Your task to perform on an android device: toggle pop-ups in chrome Image 0: 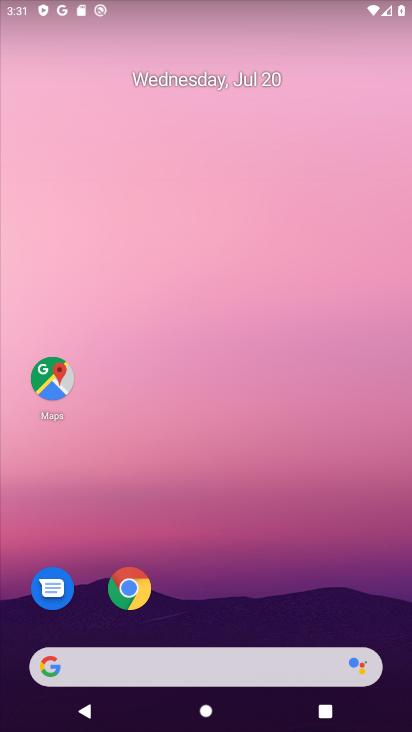
Step 0: click (143, 599)
Your task to perform on an android device: toggle pop-ups in chrome Image 1: 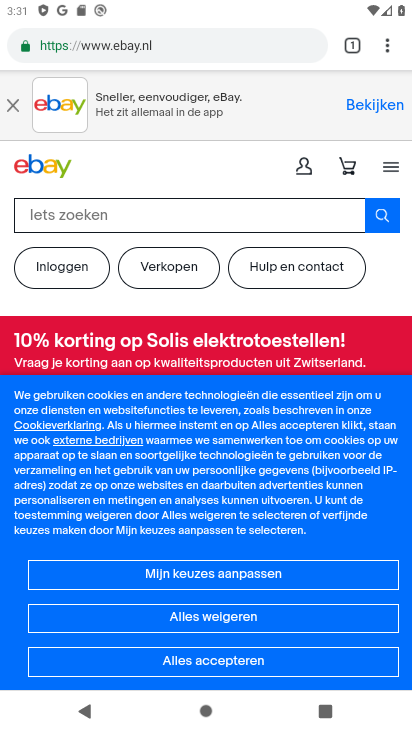
Step 1: click (397, 57)
Your task to perform on an android device: toggle pop-ups in chrome Image 2: 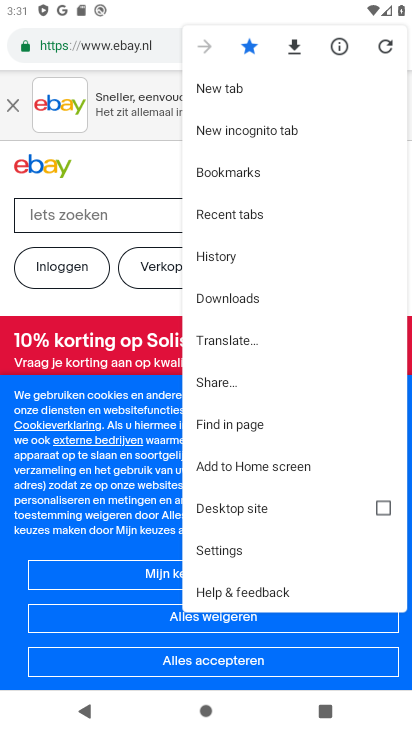
Step 2: click (224, 562)
Your task to perform on an android device: toggle pop-ups in chrome Image 3: 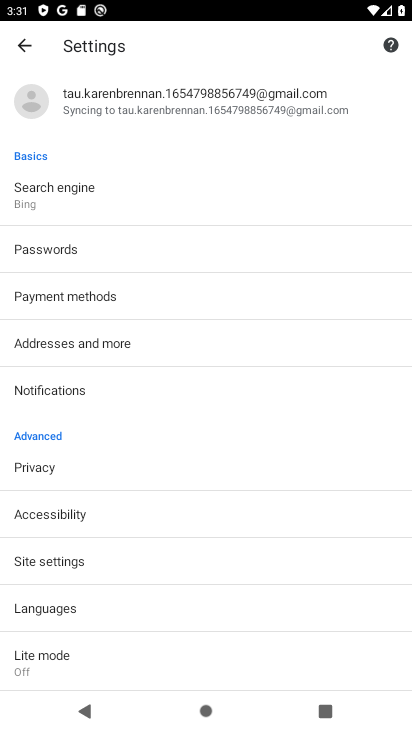
Step 3: click (73, 575)
Your task to perform on an android device: toggle pop-ups in chrome Image 4: 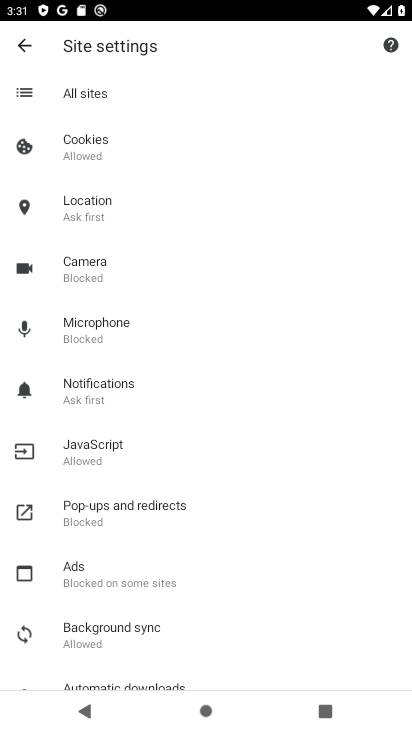
Step 4: drag from (104, 636) to (185, 66)
Your task to perform on an android device: toggle pop-ups in chrome Image 5: 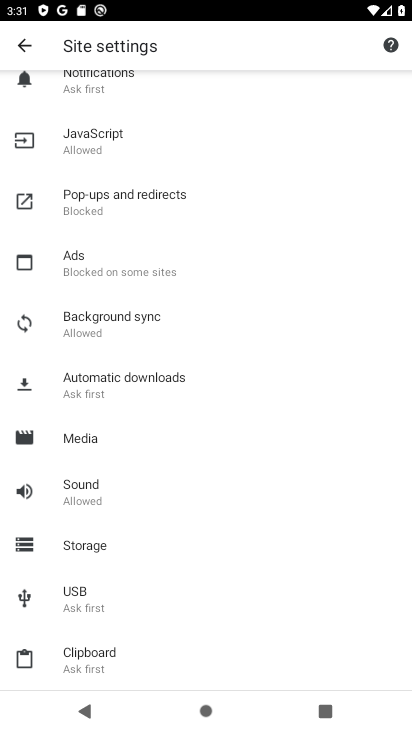
Step 5: drag from (81, 650) to (205, 211)
Your task to perform on an android device: toggle pop-ups in chrome Image 6: 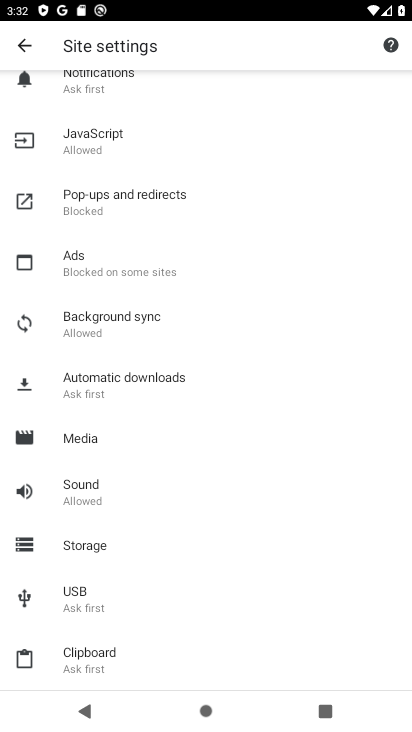
Step 6: click (133, 193)
Your task to perform on an android device: toggle pop-ups in chrome Image 7: 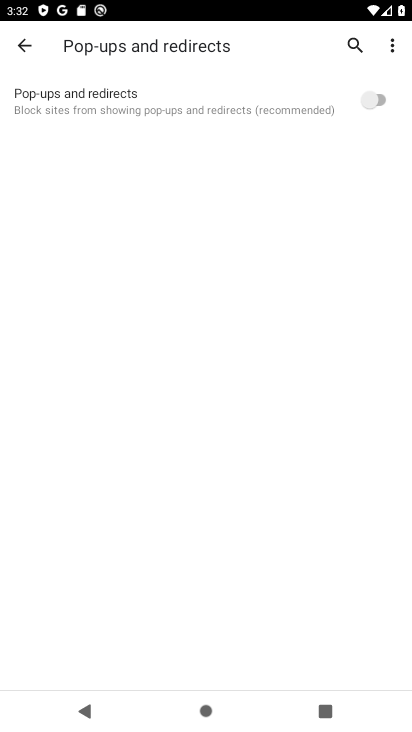
Step 7: click (365, 91)
Your task to perform on an android device: toggle pop-ups in chrome Image 8: 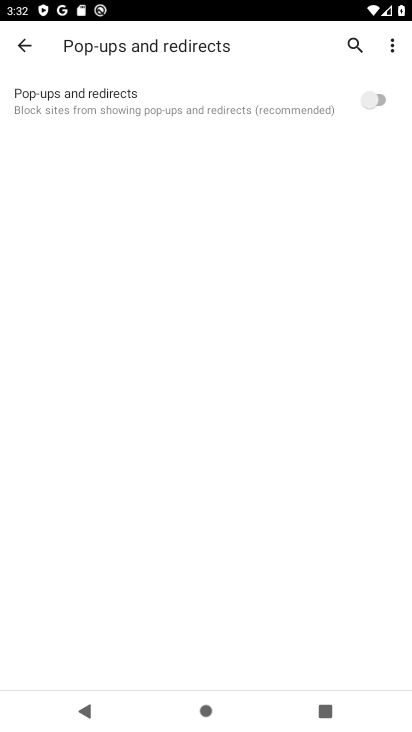
Step 8: click (365, 91)
Your task to perform on an android device: toggle pop-ups in chrome Image 9: 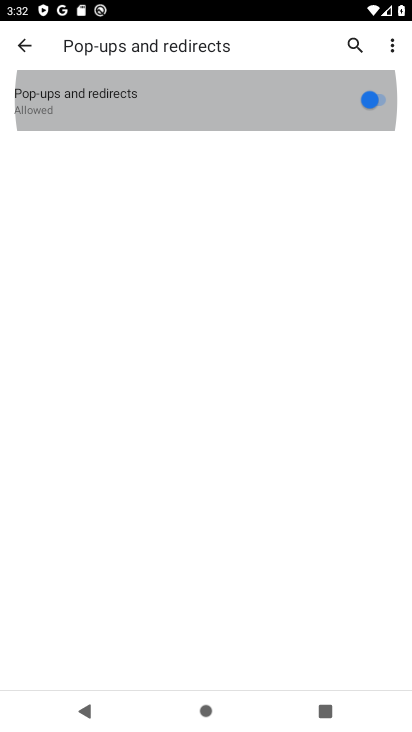
Step 9: click (365, 91)
Your task to perform on an android device: toggle pop-ups in chrome Image 10: 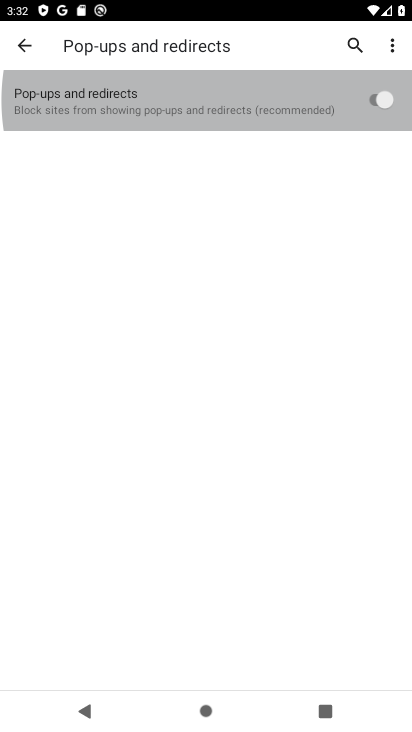
Step 10: click (365, 91)
Your task to perform on an android device: toggle pop-ups in chrome Image 11: 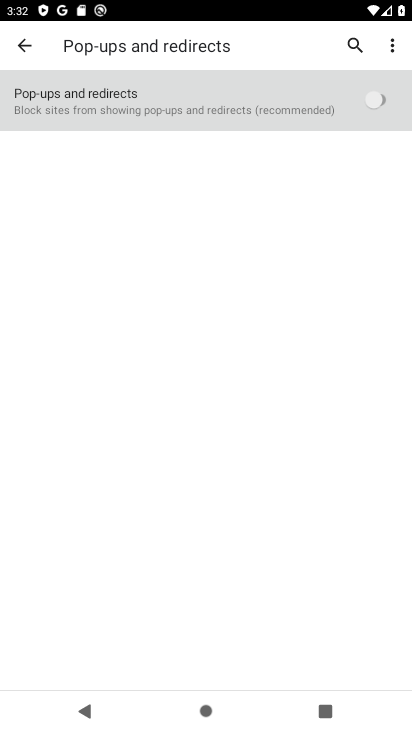
Step 11: click (365, 91)
Your task to perform on an android device: toggle pop-ups in chrome Image 12: 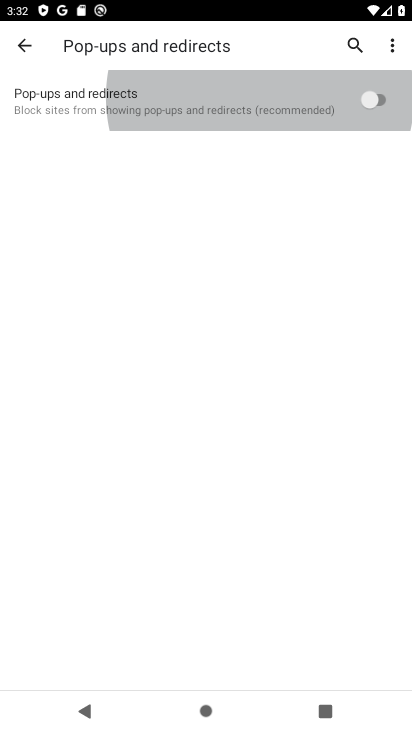
Step 12: click (365, 91)
Your task to perform on an android device: toggle pop-ups in chrome Image 13: 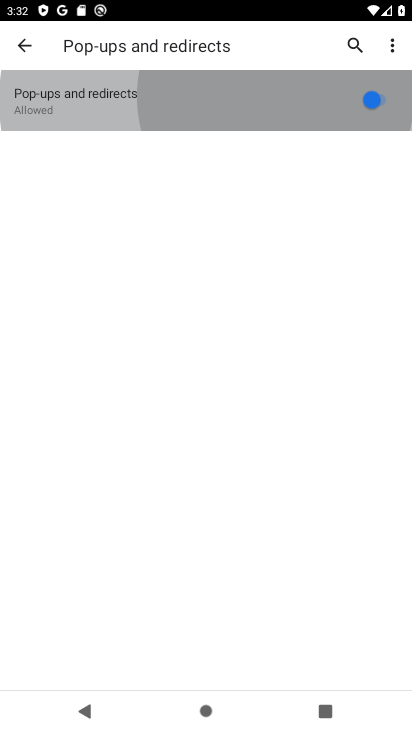
Step 13: click (365, 91)
Your task to perform on an android device: toggle pop-ups in chrome Image 14: 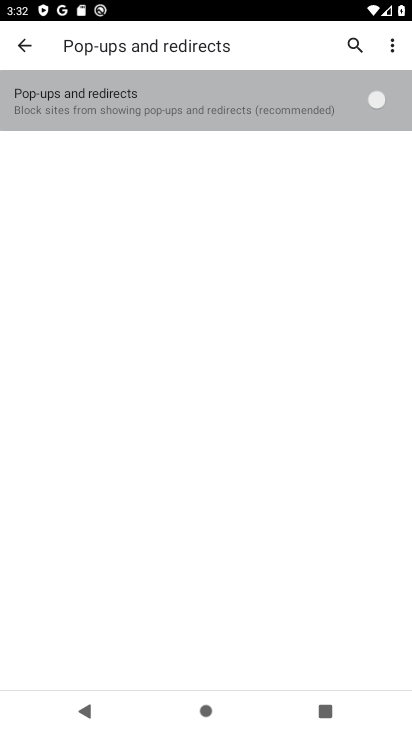
Step 14: click (365, 91)
Your task to perform on an android device: toggle pop-ups in chrome Image 15: 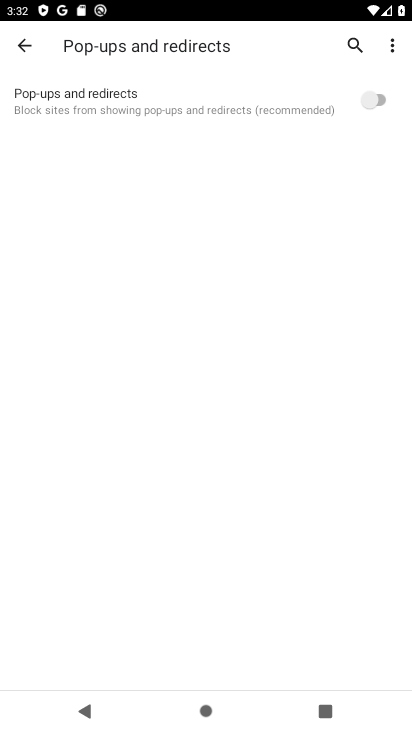
Step 15: task complete